Your task to perform on an android device: Open Reddit.com Image 0: 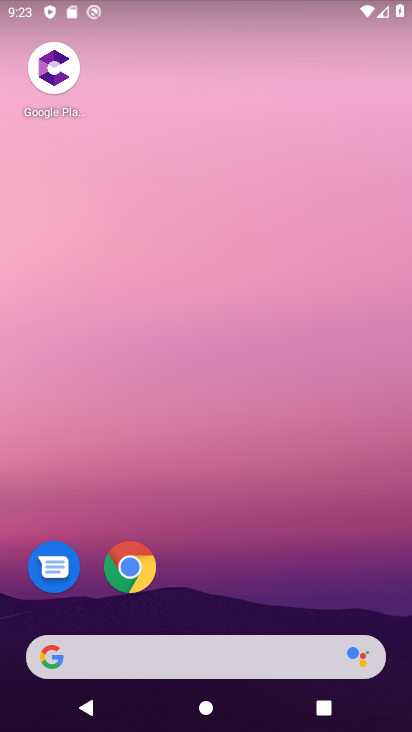
Step 0: click (137, 570)
Your task to perform on an android device: Open Reddit.com Image 1: 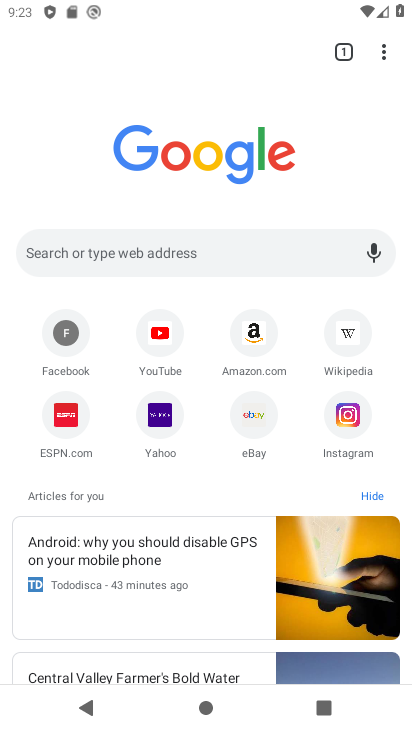
Step 1: click (166, 253)
Your task to perform on an android device: Open Reddit.com Image 2: 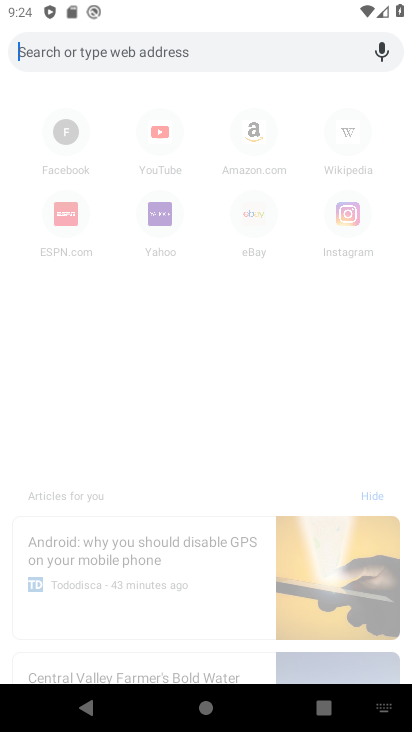
Step 2: type "Reddit.com"
Your task to perform on an android device: Open Reddit.com Image 3: 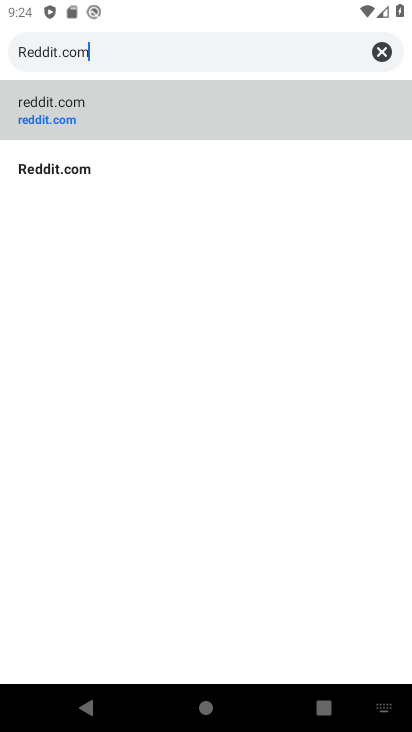
Step 3: click (206, 123)
Your task to perform on an android device: Open Reddit.com Image 4: 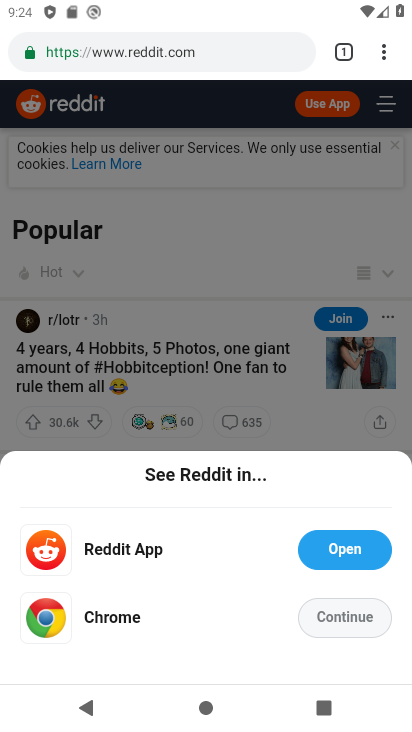
Step 4: task complete